Your task to perform on an android device: turn off javascript in the chrome app Image 0: 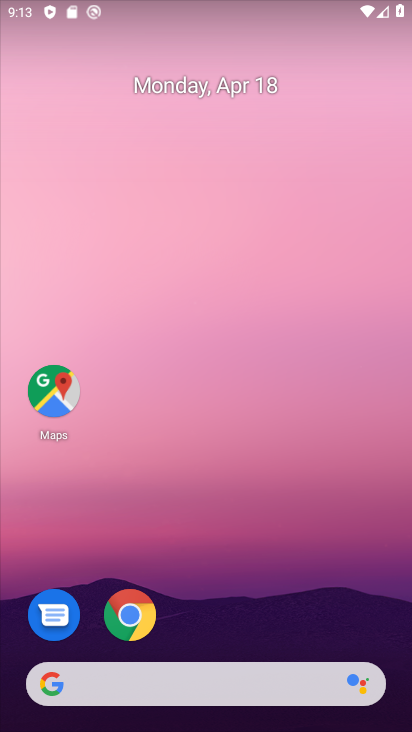
Step 0: click (132, 617)
Your task to perform on an android device: turn off javascript in the chrome app Image 1: 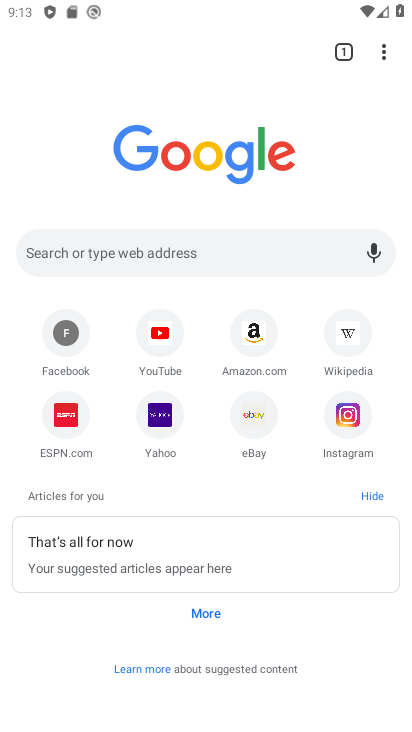
Step 1: click (383, 55)
Your task to perform on an android device: turn off javascript in the chrome app Image 2: 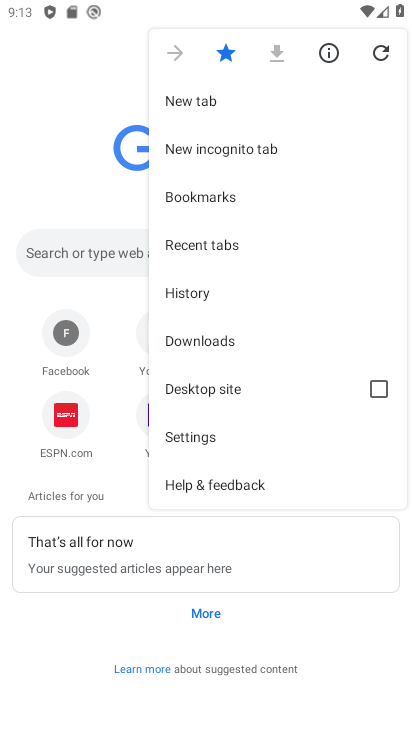
Step 2: click (187, 436)
Your task to perform on an android device: turn off javascript in the chrome app Image 3: 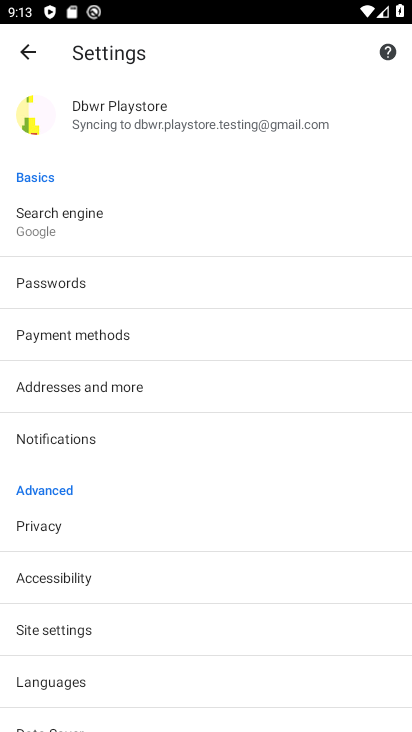
Step 3: click (56, 625)
Your task to perform on an android device: turn off javascript in the chrome app Image 4: 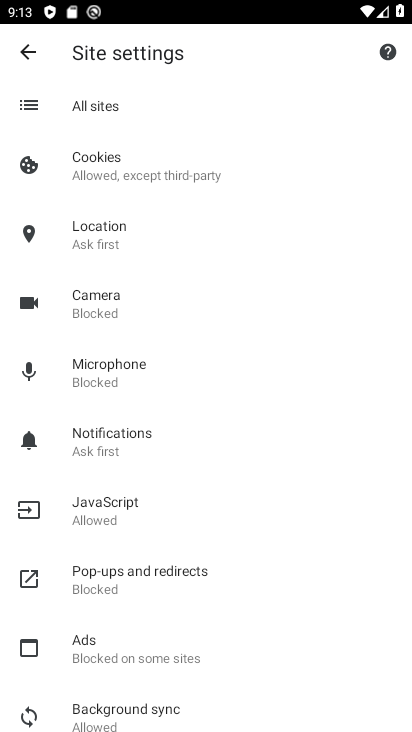
Step 4: click (117, 517)
Your task to perform on an android device: turn off javascript in the chrome app Image 5: 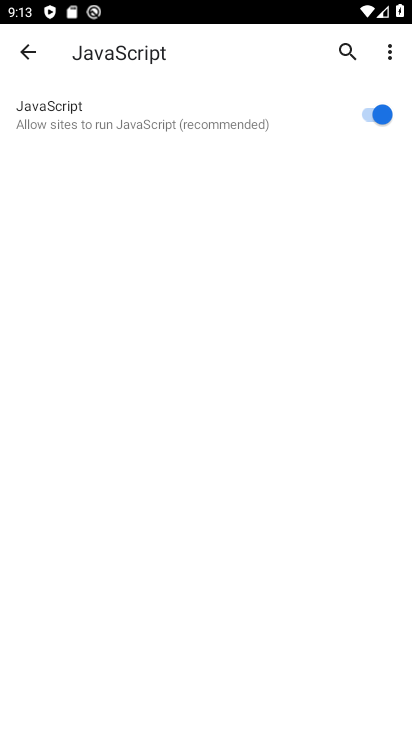
Step 5: click (365, 116)
Your task to perform on an android device: turn off javascript in the chrome app Image 6: 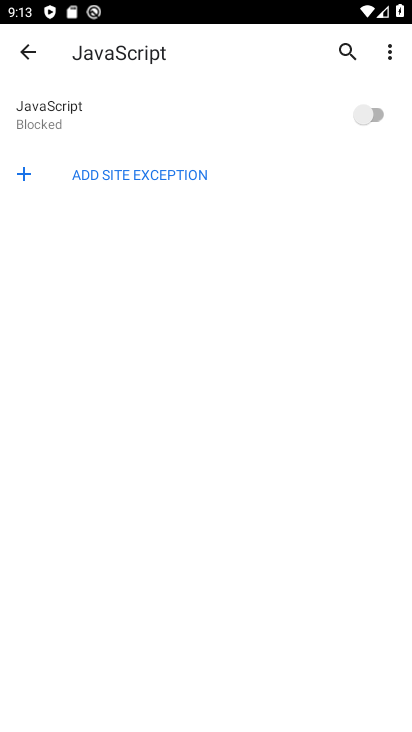
Step 6: task complete